Your task to perform on an android device: Open calendar and show me the third week of next month Image 0: 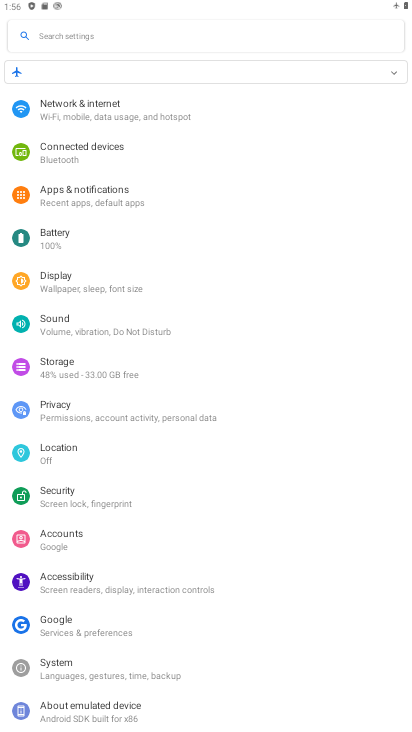
Step 0: press home button
Your task to perform on an android device: Open calendar and show me the third week of next month Image 1: 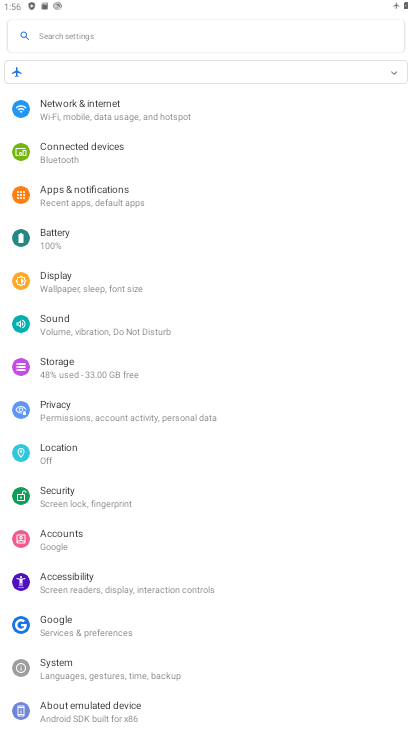
Step 1: press home button
Your task to perform on an android device: Open calendar and show me the third week of next month Image 2: 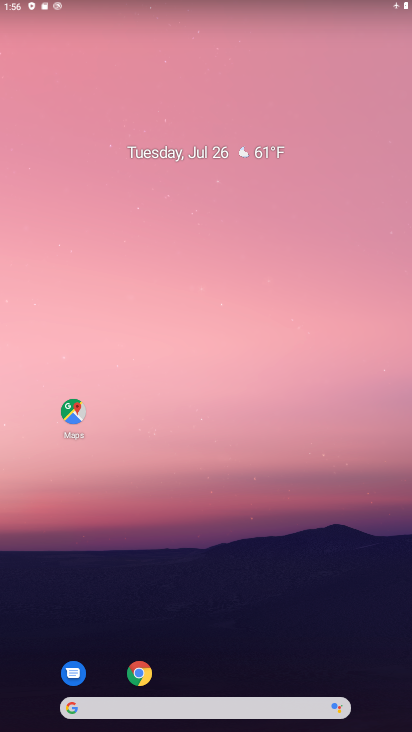
Step 2: drag from (190, 667) to (255, 267)
Your task to perform on an android device: Open calendar and show me the third week of next month Image 3: 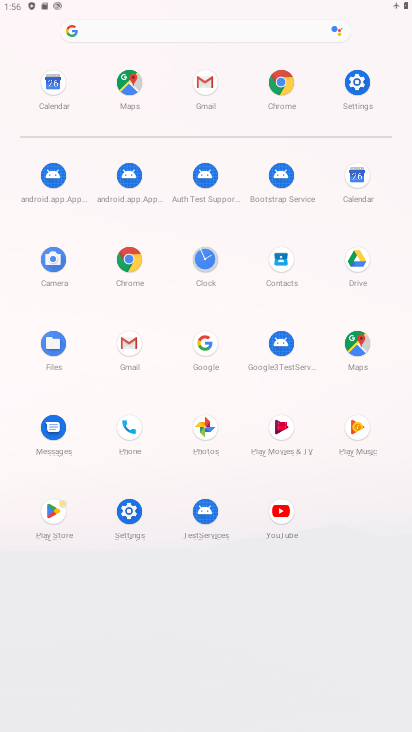
Step 3: click (361, 179)
Your task to perform on an android device: Open calendar and show me the third week of next month Image 4: 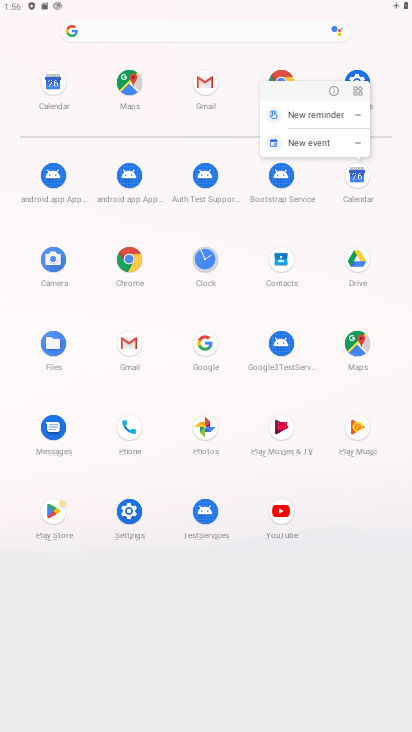
Step 4: click (334, 92)
Your task to perform on an android device: Open calendar and show me the third week of next month Image 5: 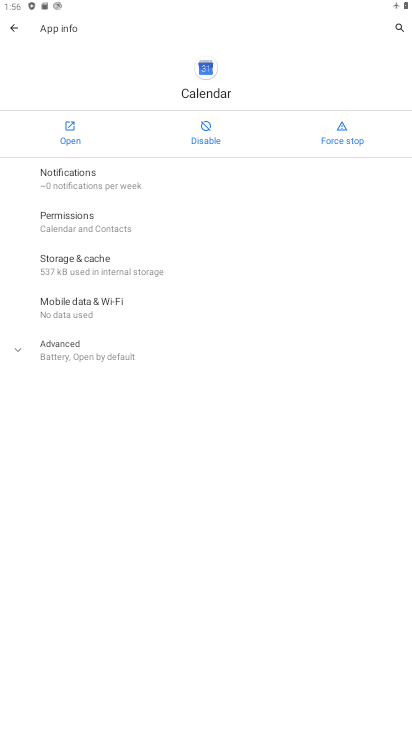
Step 5: click (63, 128)
Your task to perform on an android device: Open calendar and show me the third week of next month Image 6: 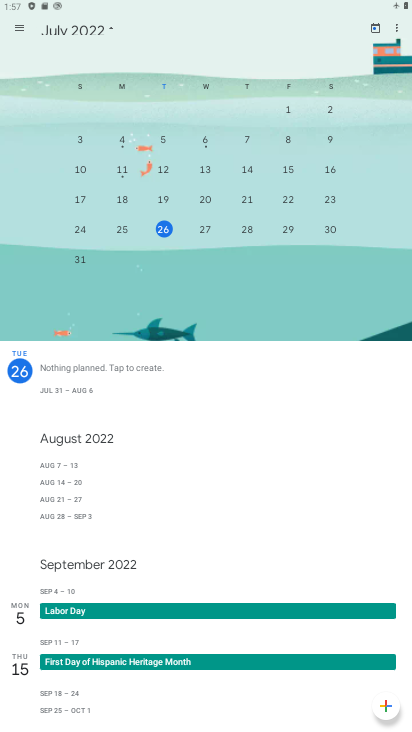
Step 6: drag from (301, 208) to (22, 233)
Your task to perform on an android device: Open calendar and show me the third week of next month Image 7: 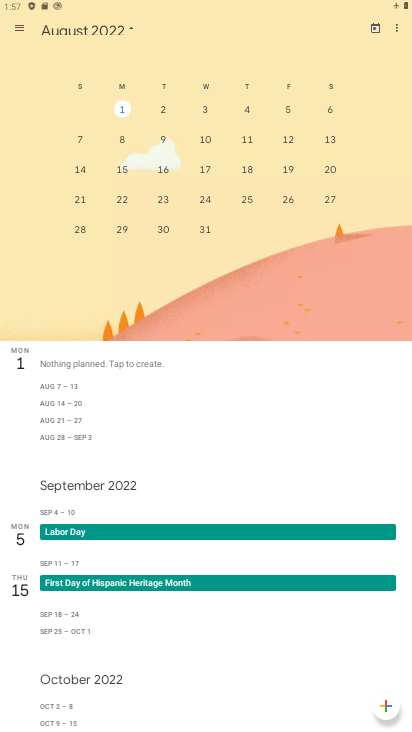
Step 7: click (246, 167)
Your task to perform on an android device: Open calendar and show me the third week of next month Image 8: 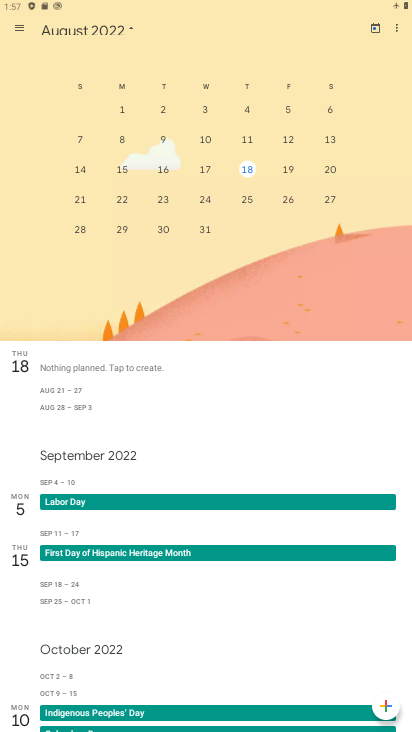
Step 8: task complete